Your task to perform on an android device: toggle sleep mode Image 0: 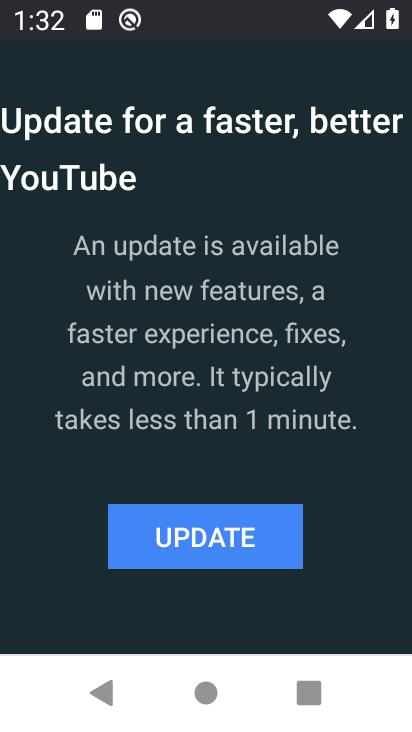
Step 0: press home button
Your task to perform on an android device: toggle sleep mode Image 1: 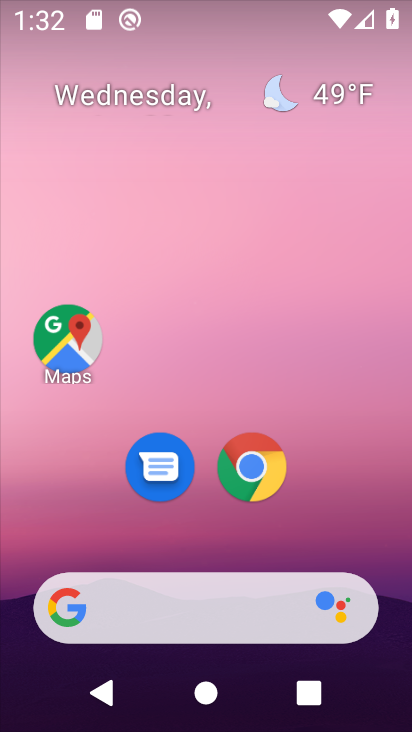
Step 1: drag from (389, 595) to (338, 180)
Your task to perform on an android device: toggle sleep mode Image 2: 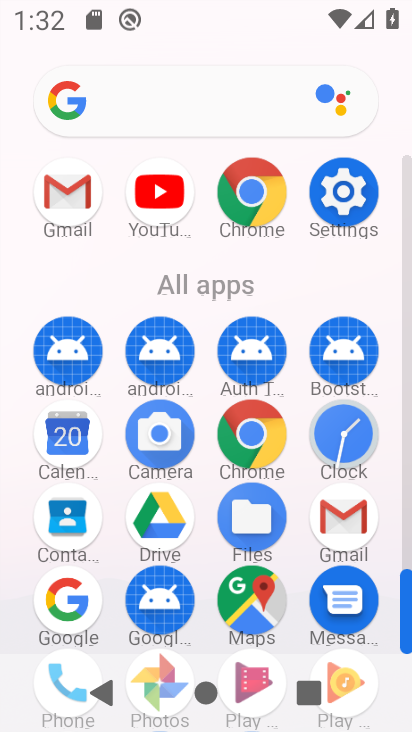
Step 2: drag from (407, 552) to (400, 485)
Your task to perform on an android device: toggle sleep mode Image 3: 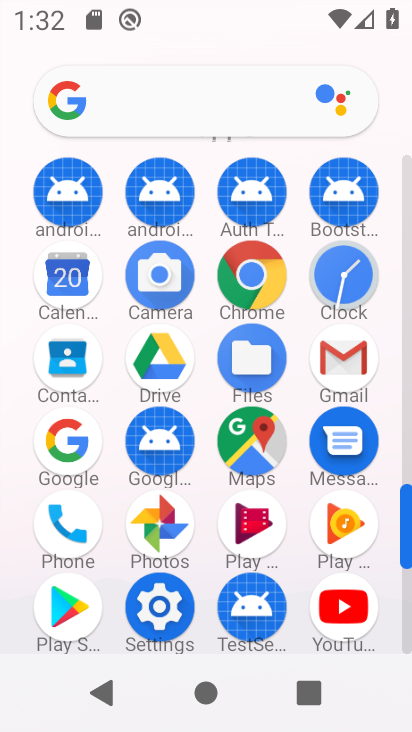
Step 3: click (156, 600)
Your task to perform on an android device: toggle sleep mode Image 4: 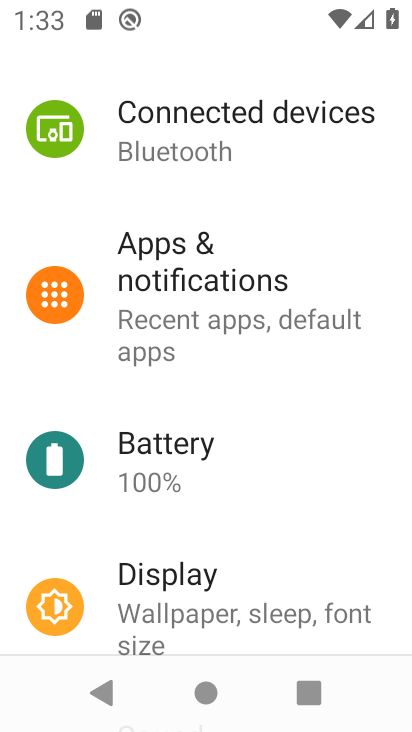
Step 4: drag from (301, 574) to (324, 323)
Your task to perform on an android device: toggle sleep mode Image 5: 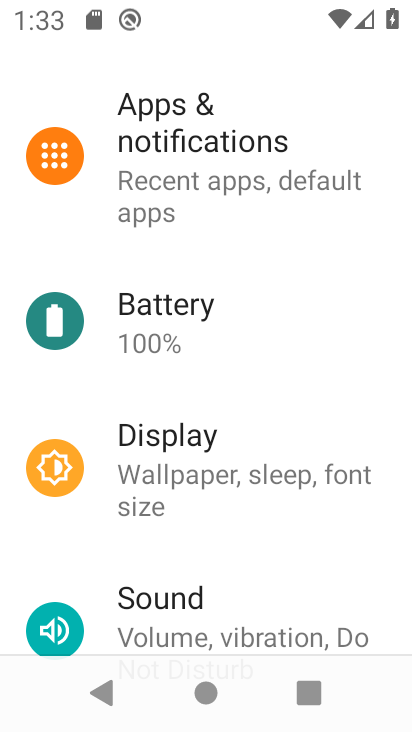
Step 5: click (166, 457)
Your task to perform on an android device: toggle sleep mode Image 6: 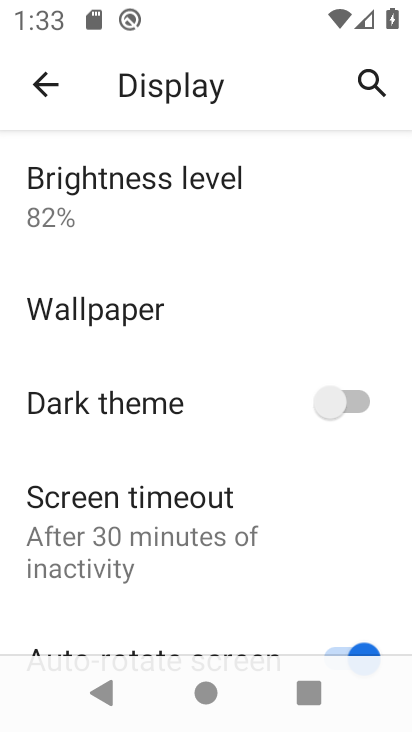
Step 6: drag from (260, 530) to (238, 235)
Your task to perform on an android device: toggle sleep mode Image 7: 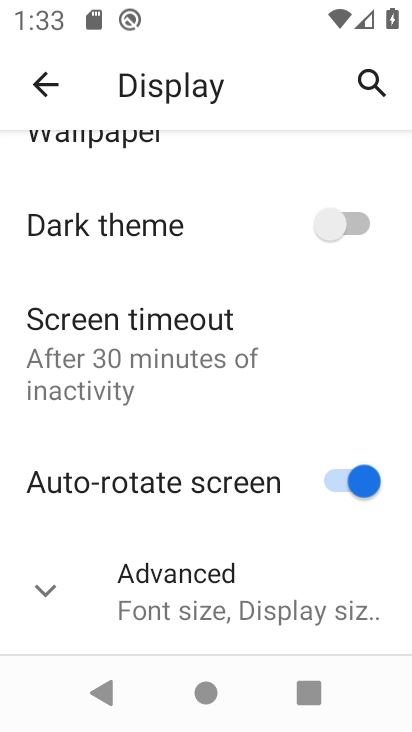
Step 7: click (43, 595)
Your task to perform on an android device: toggle sleep mode Image 8: 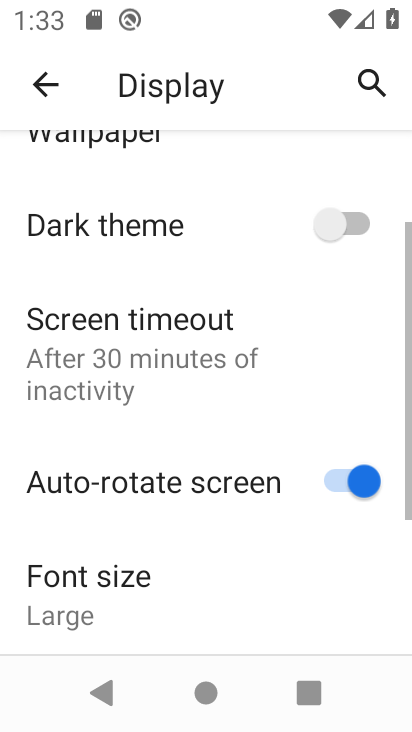
Step 8: task complete